Your task to perform on an android device: turn off wifi Image 0: 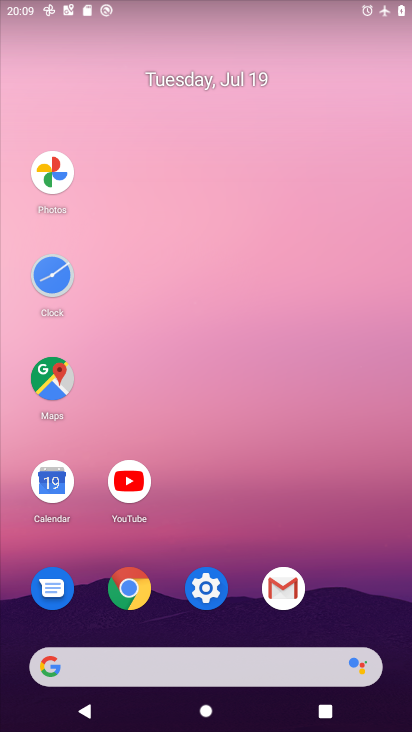
Step 0: click (215, 587)
Your task to perform on an android device: turn off wifi Image 1: 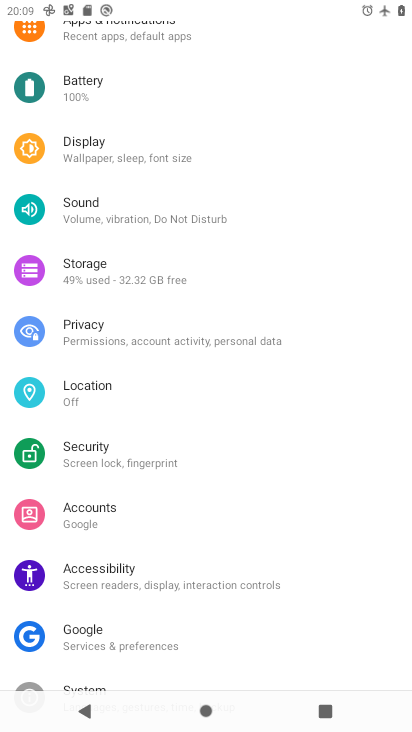
Step 1: drag from (232, 139) to (195, 501)
Your task to perform on an android device: turn off wifi Image 2: 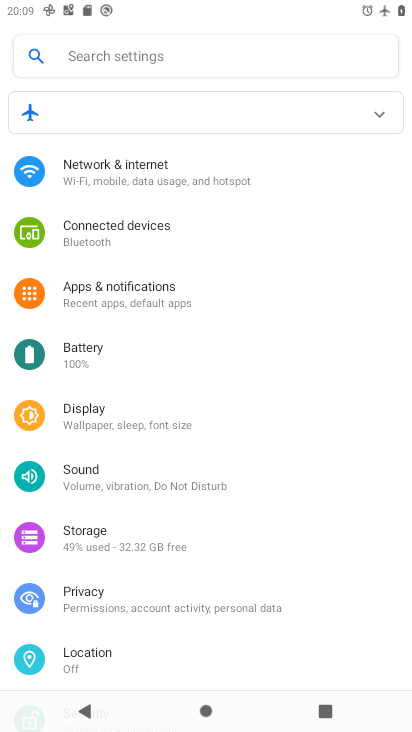
Step 2: click (114, 166)
Your task to perform on an android device: turn off wifi Image 3: 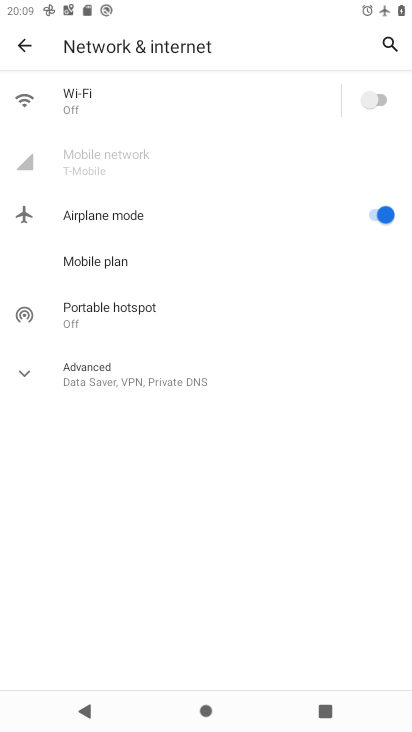
Step 3: task complete